Your task to perform on an android device: Open Yahoo.com Image 0: 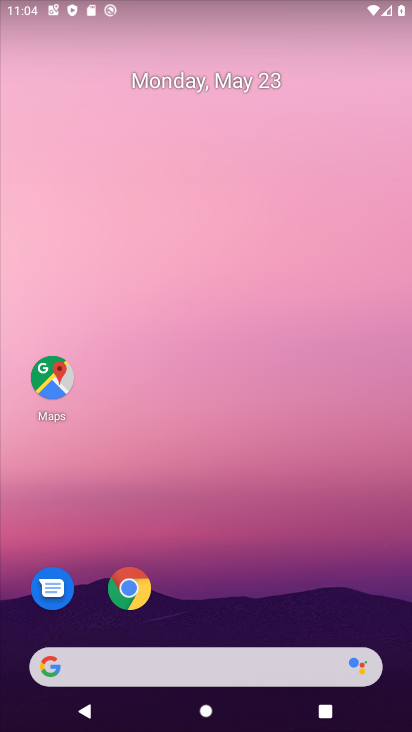
Step 0: click (128, 596)
Your task to perform on an android device: Open Yahoo.com Image 1: 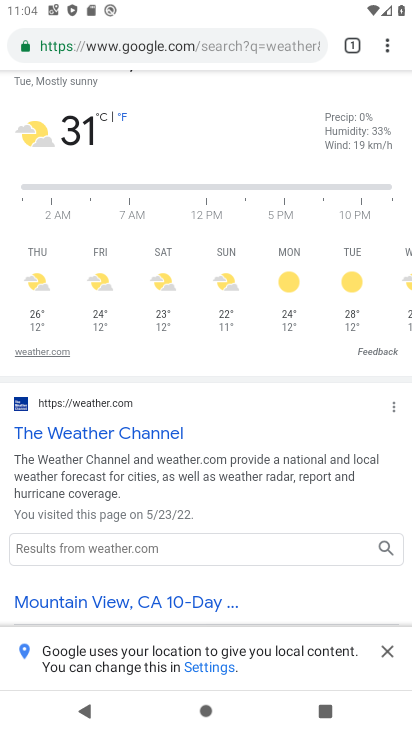
Step 1: click (176, 53)
Your task to perform on an android device: Open Yahoo.com Image 2: 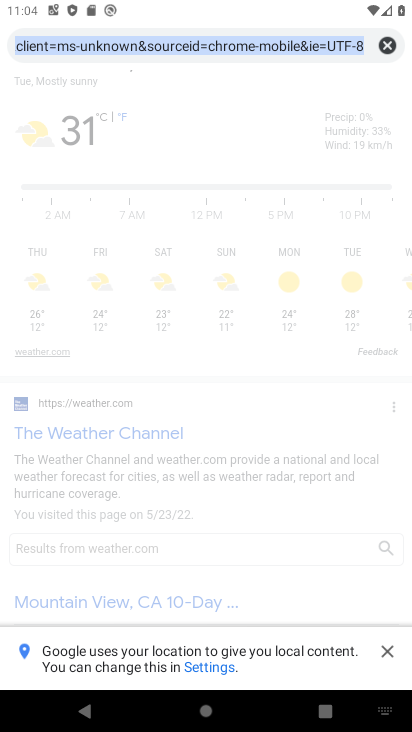
Step 2: click (388, 42)
Your task to perform on an android device: Open Yahoo.com Image 3: 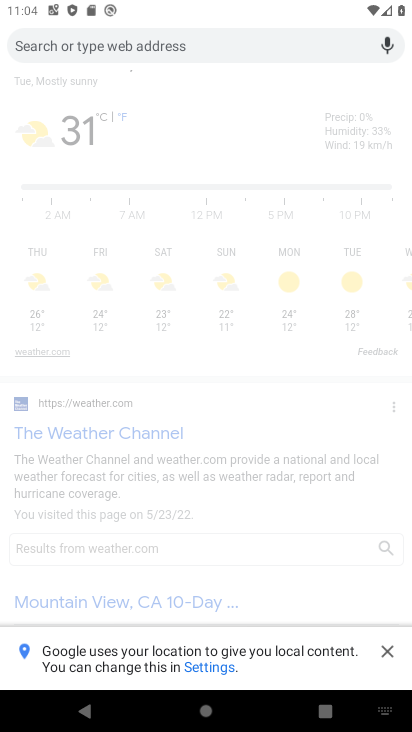
Step 3: type "yahoo.com"
Your task to perform on an android device: Open Yahoo.com Image 4: 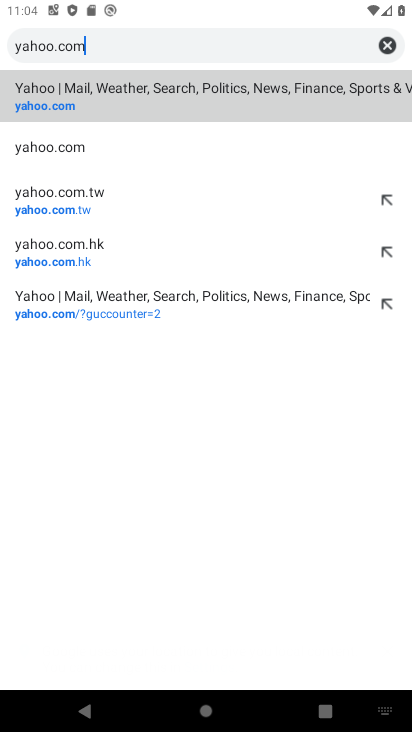
Step 4: click (51, 108)
Your task to perform on an android device: Open Yahoo.com Image 5: 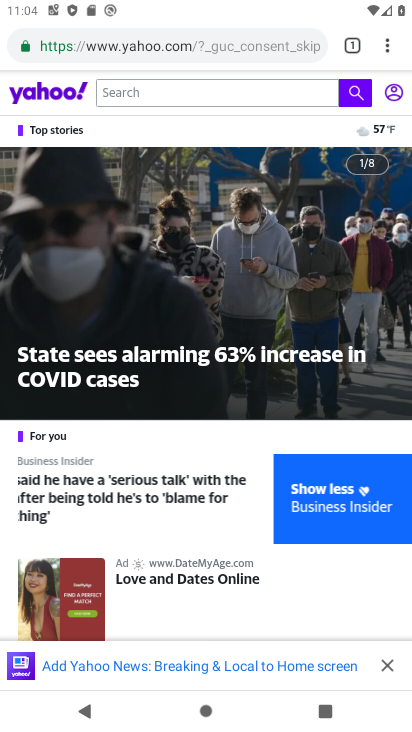
Step 5: task complete